Your task to perform on an android device: Turn off the flashlight Image 0: 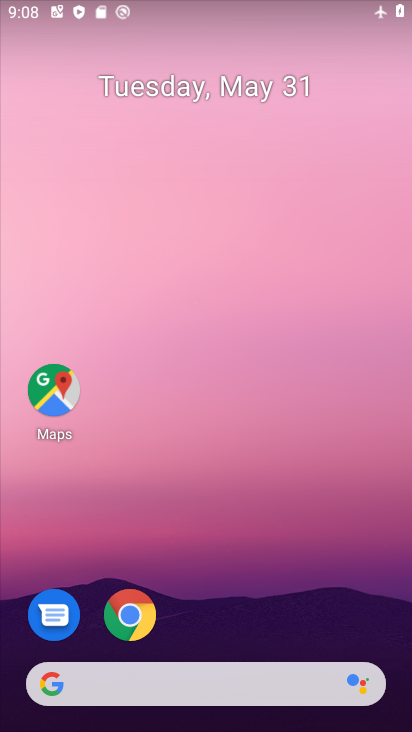
Step 0: drag from (227, 13) to (222, 466)
Your task to perform on an android device: Turn off the flashlight Image 1: 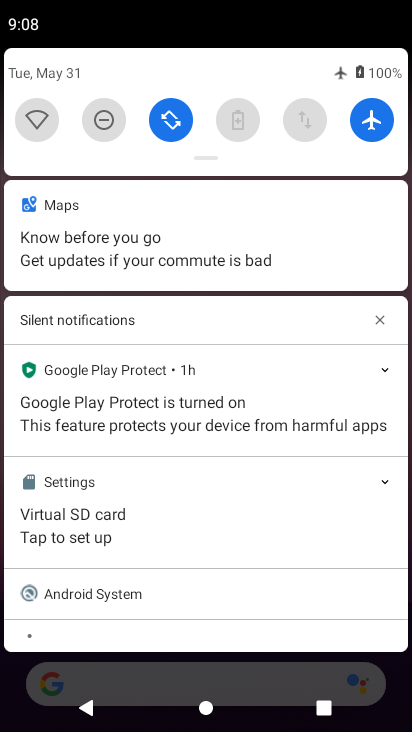
Step 1: drag from (215, 161) to (208, 507)
Your task to perform on an android device: Turn off the flashlight Image 2: 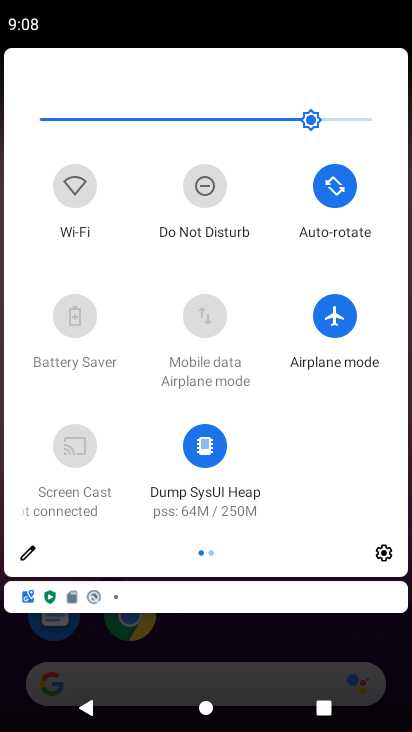
Step 2: click (28, 549)
Your task to perform on an android device: Turn off the flashlight Image 3: 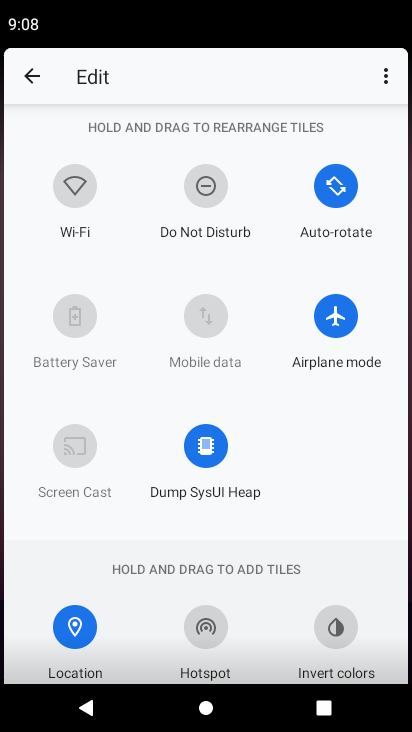
Step 3: task complete